Your task to perform on an android device: toggle notifications settings in the gmail app Image 0: 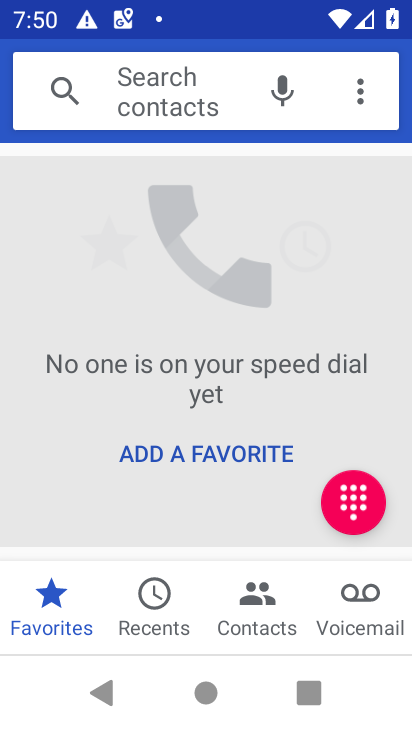
Step 0: press home button
Your task to perform on an android device: toggle notifications settings in the gmail app Image 1: 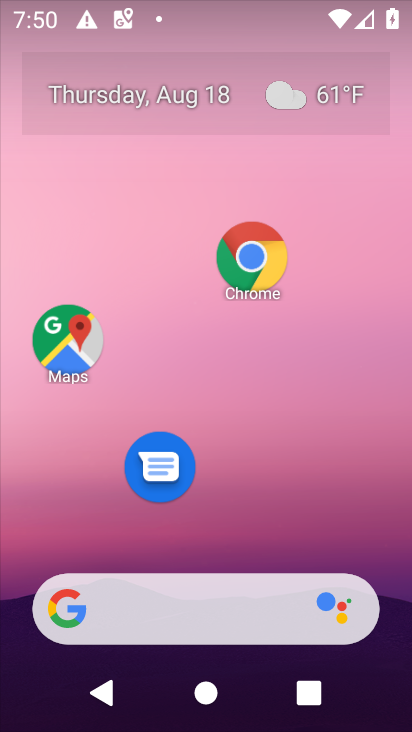
Step 1: drag from (258, 517) to (218, 182)
Your task to perform on an android device: toggle notifications settings in the gmail app Image 2: 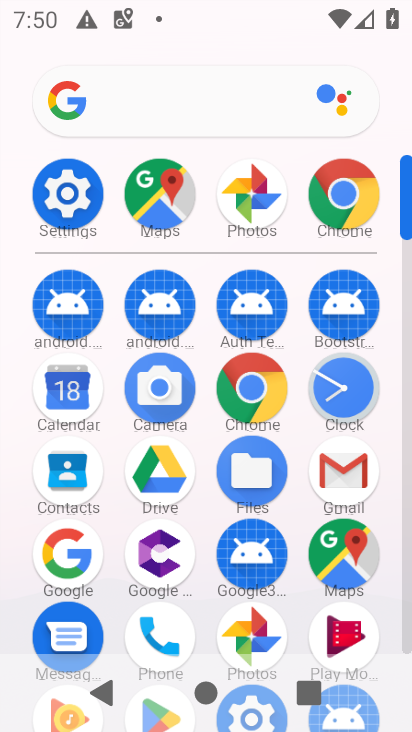
Step 2: click (335, 477)
Your task to perform on an android device: toggle notifications settings in the gmail app Image 3: 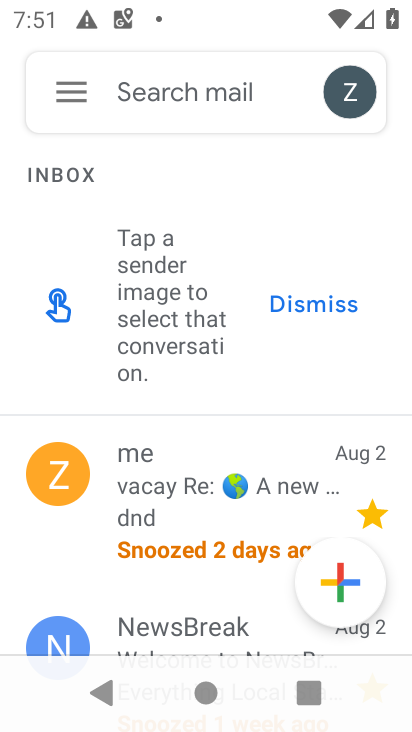
Step 3: task complete